Your task to perform on an android device: toggle improve location accuracy Image 0: 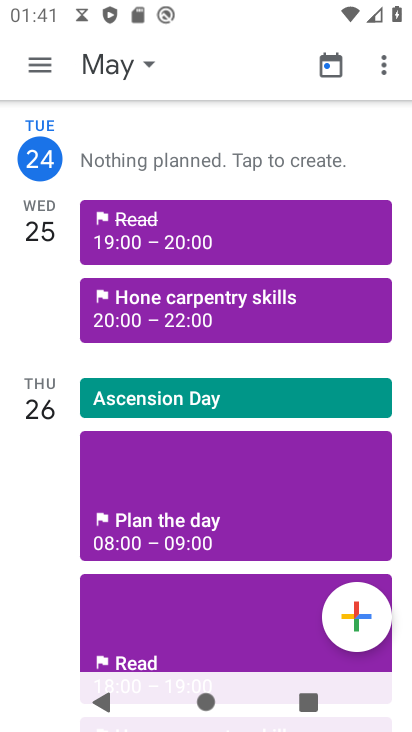
Step 0: press home button
Your task to perform on an android device: toggle improve location accuracy Image 1: 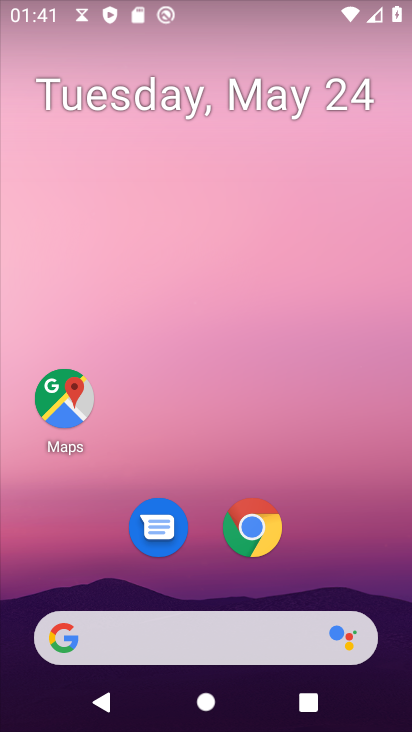
Step 1: drag from (223, 643) to (363, 122)
Your task to perform on an android device: toggle improve location accuracy Image 2: 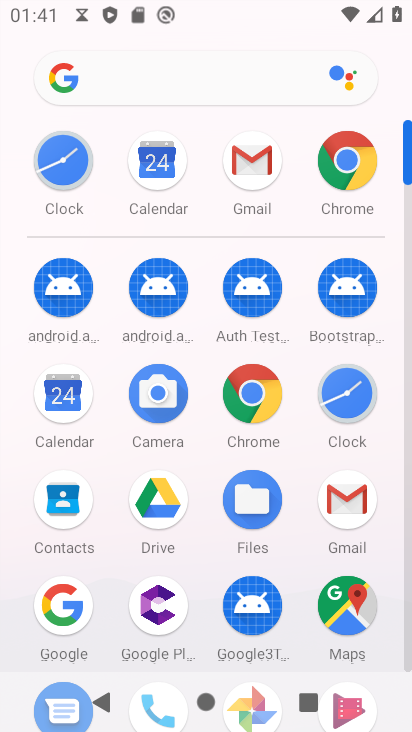
Step 2: drag from (199, 634) to (348, 93)
Your task to perform on an android device: toggle improve location accuracy Image 3: 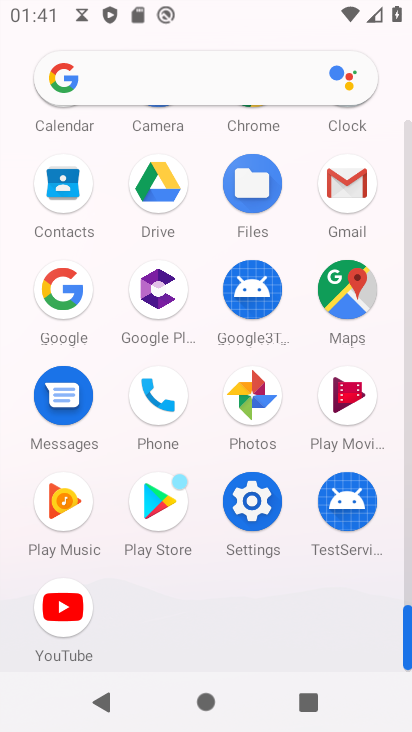
Step 3: click (259, 503)
Your task to perform on an android device: toggle improve location accuracy Image 4: 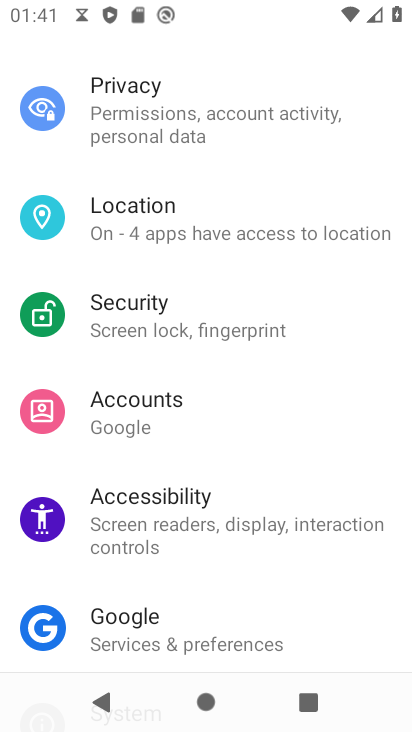
Step 4: click (174, 222)
Your task to perform on an android device: toggle improve location accuracy Image 5: 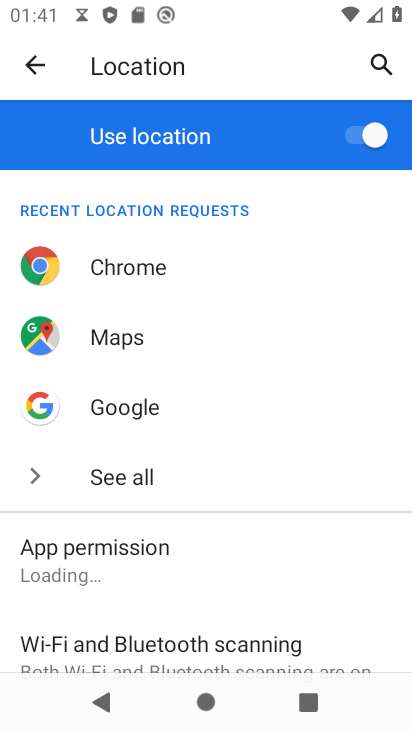
Step 5: drag from (82, 606) to (248, 122)
Your task to perform on an android device: toggle improve location accuracy Image 6: 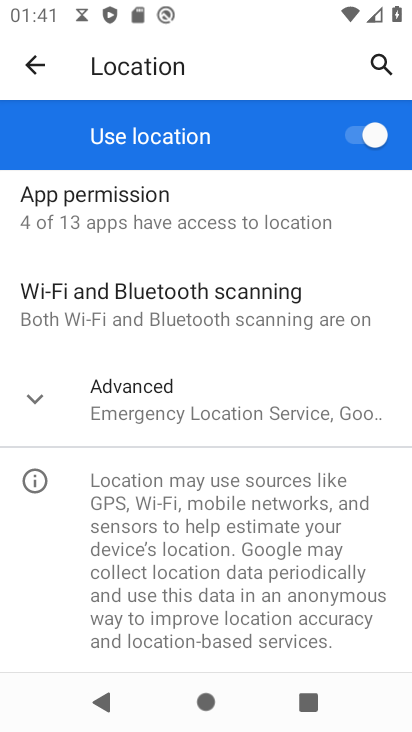
Step 6: click (107, 420)
Your task to perform on an android device: toggle improve location accuracy Image 7: 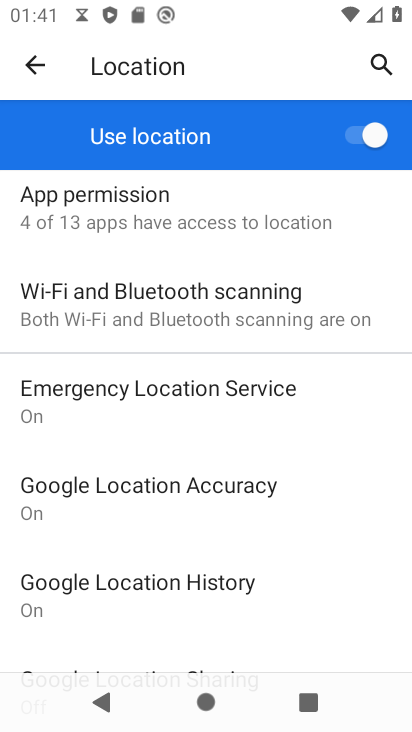
Step 7: click (122, 492)
Your task to perform on an android device: toggle improve location accuracy Image 8: 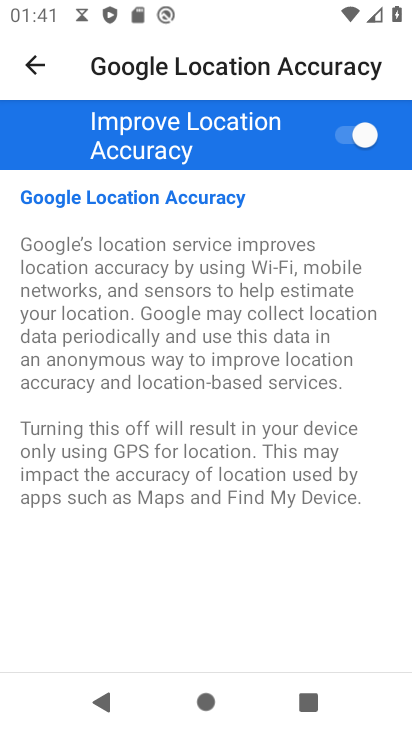
Step 8: click (348, 139)
Your task to perform on an android device: toggle improve location accuracy Image 9: 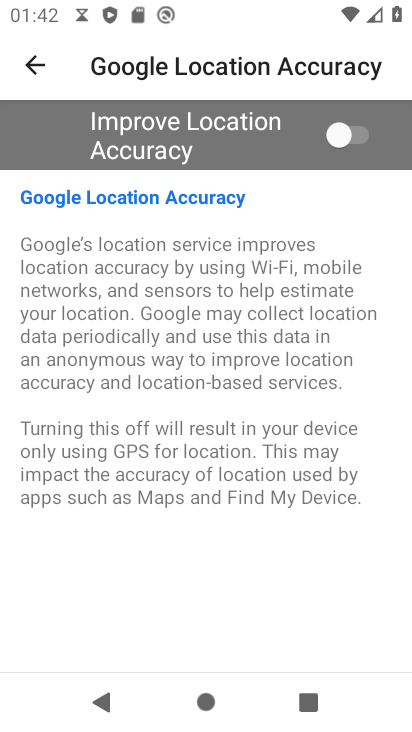
Step 9: task complete